Your task to perform on an android device: turn off data saver in the chrome app Image 0: 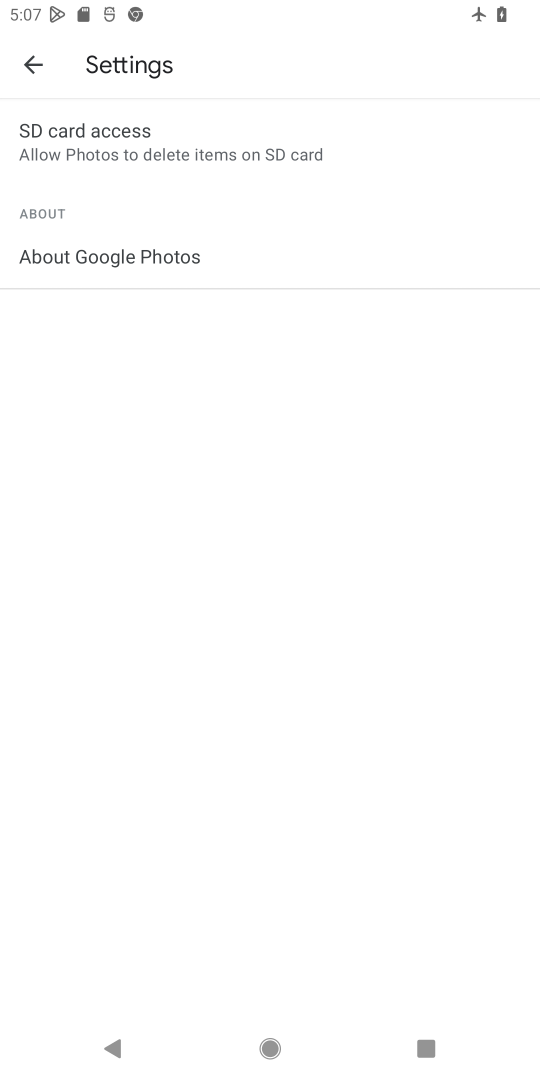
Step 0: click (35, 71)
Your task to perform on an android device: turn off data saver in the chrome app Image 1: 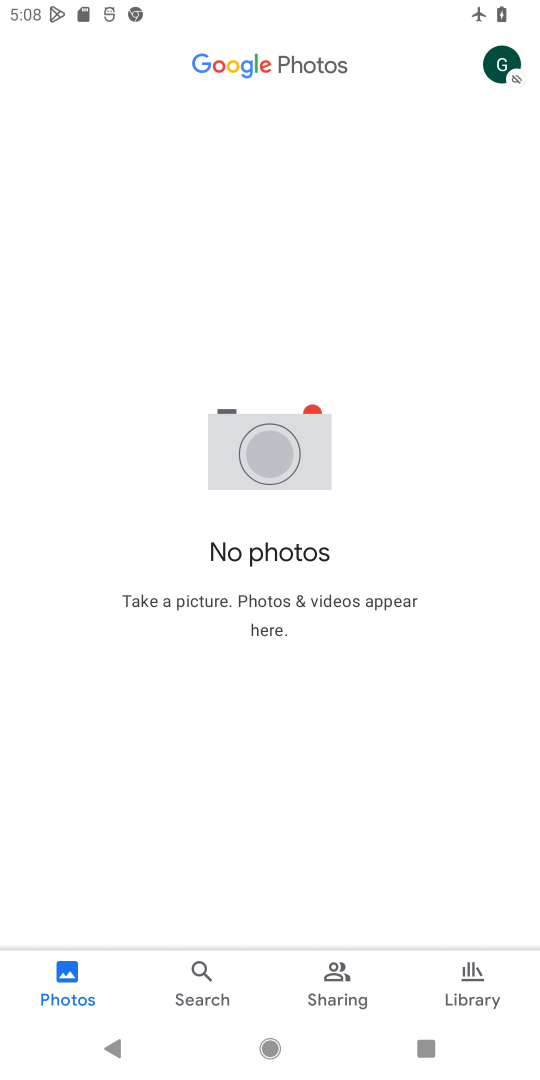
Step 1: press home button
Your task to perform on an android device: turn off data saver in the chrome app Image 2: 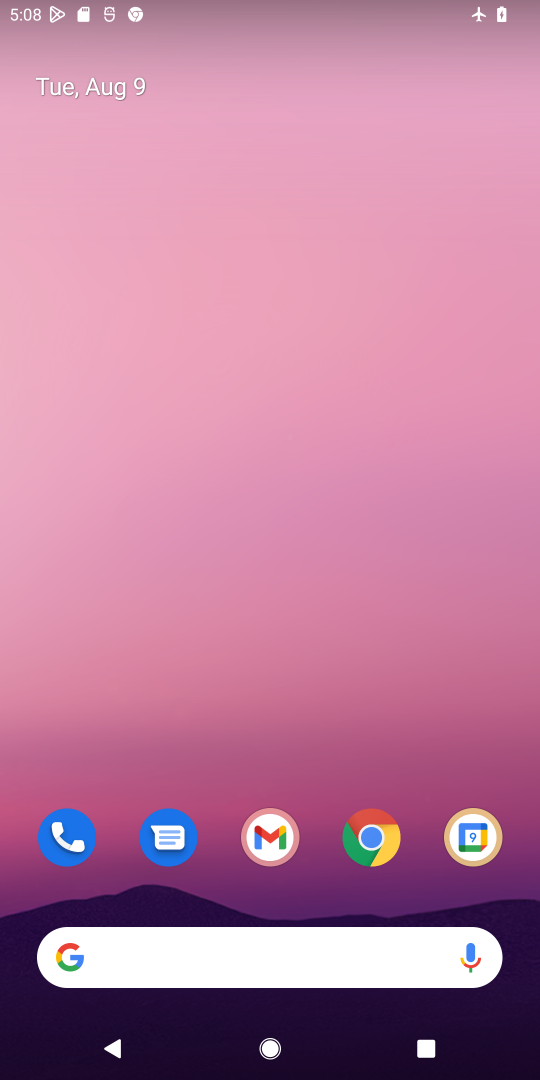
Step 2: drag from (178, 907) to (275, 295)
Your task to perform on an android device: turn off data saver in the chrome app Image 3: 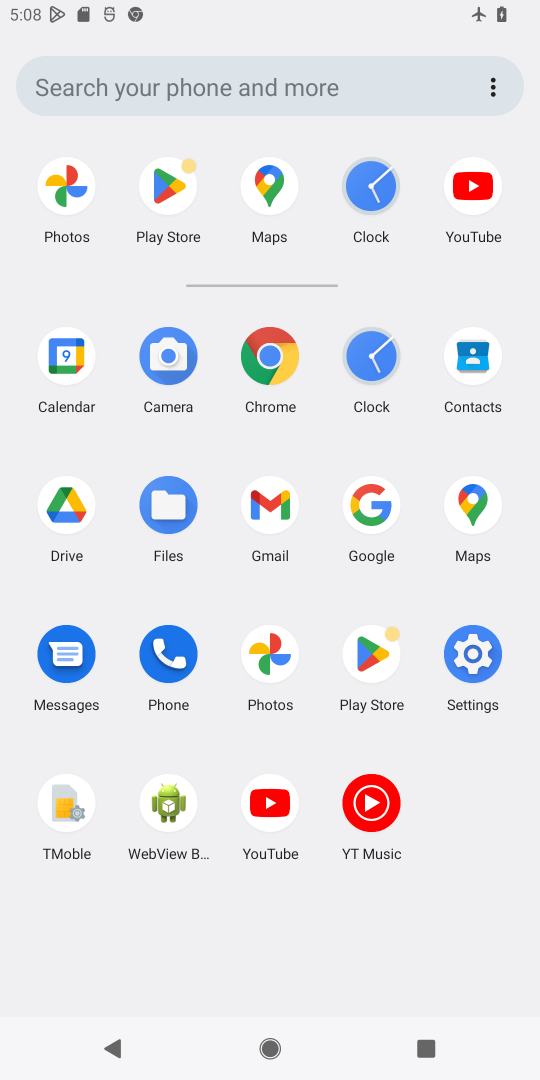
Step 3: click (463, 628)
Your task to perform on an android device: turn off data saver in the chrome app Image 4: 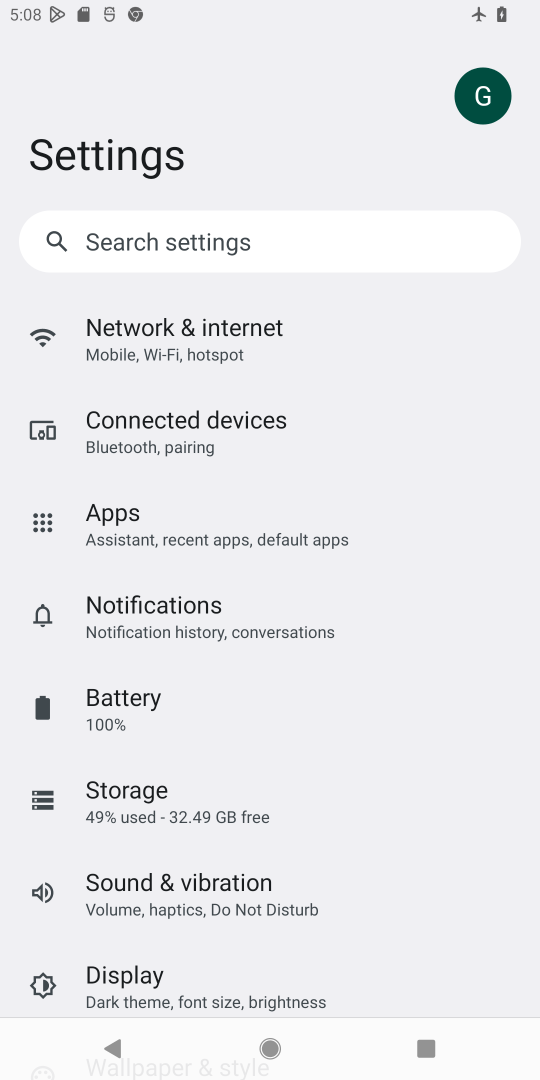
Step 4: drag from (201, 917) to (332, 521)
Your task to perform on an android device: turn off data saver in the chrome app Image 5: 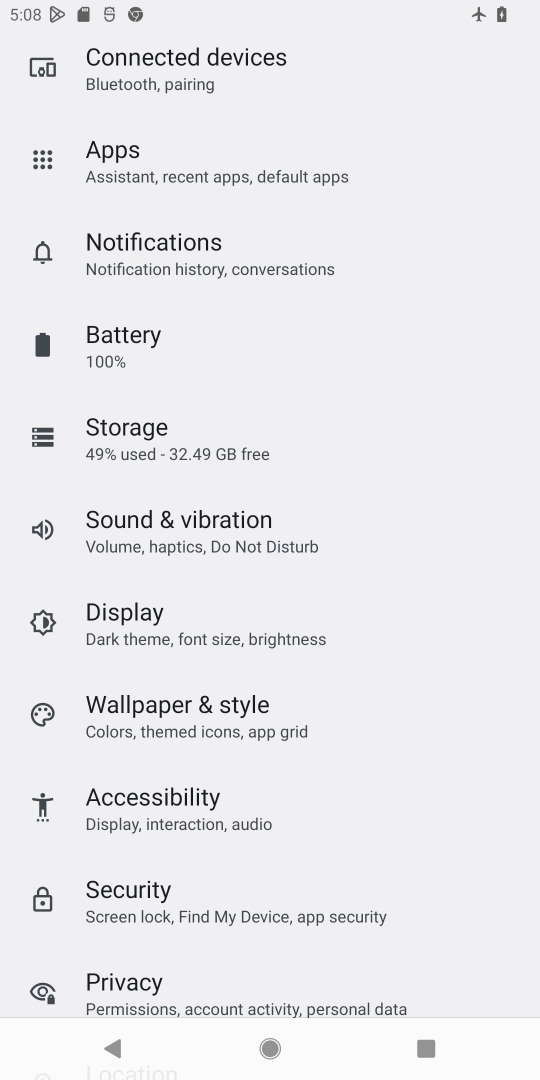
Step 5: press home button
Your task to perform on an android device: turn off data saver in the chrome app Image 6: 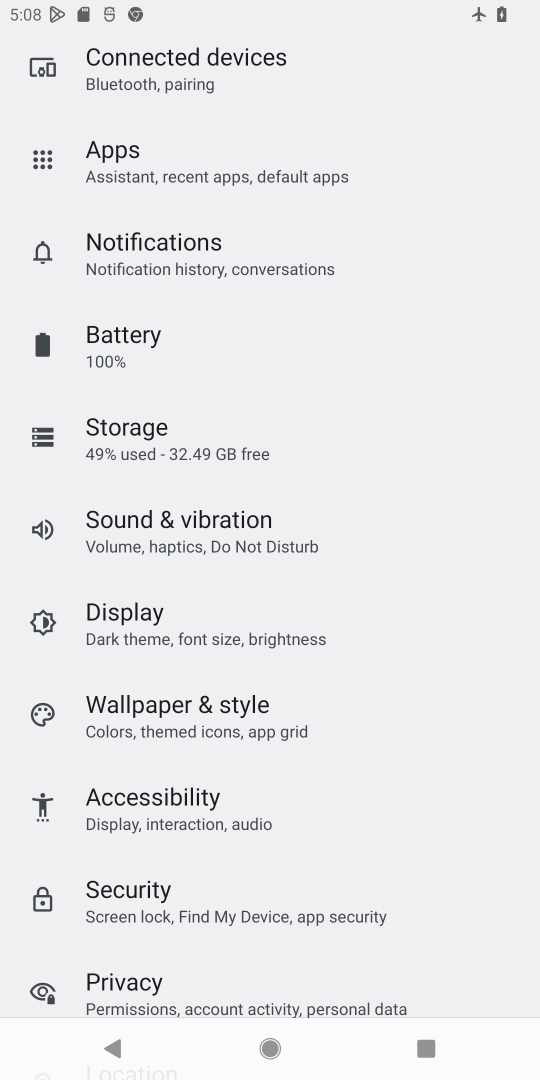
Step 6: press home button
Your task to perform on an android device: turn off data saver in the chrome app Image 7: 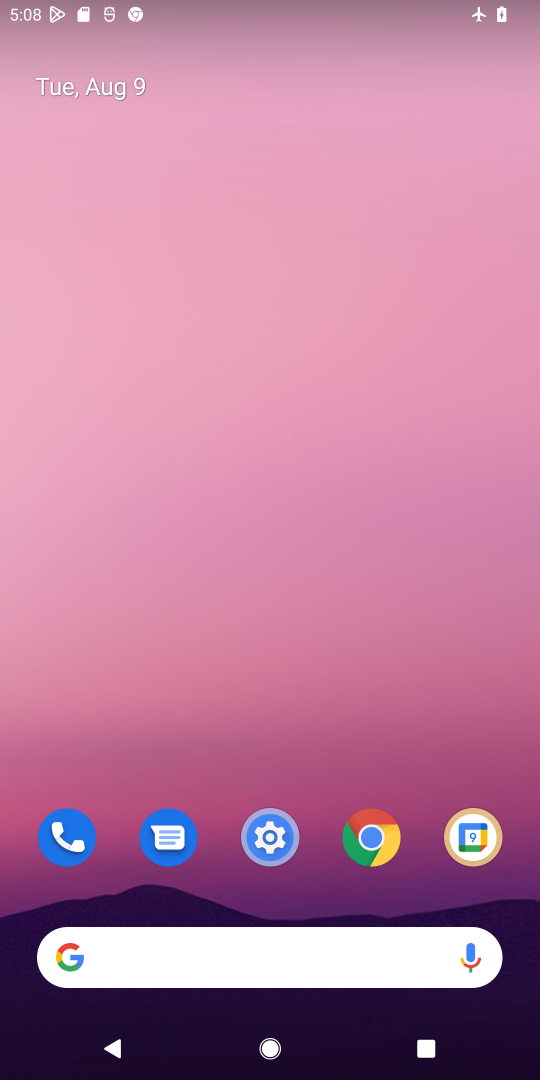
Step 7: drag from (265, 799) to (400, 210)
Your task to perform on an android device: turn off data saver in the chrome app Image 8: 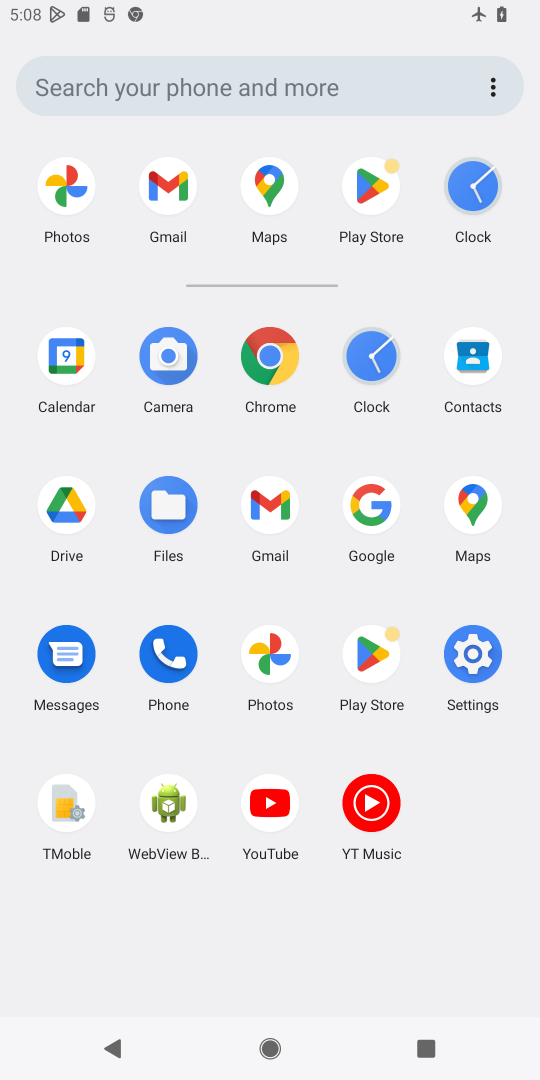
Step 8: click (287, 339)
Your task to perform on an android device: turn off data saver in the chrome app Image 9: 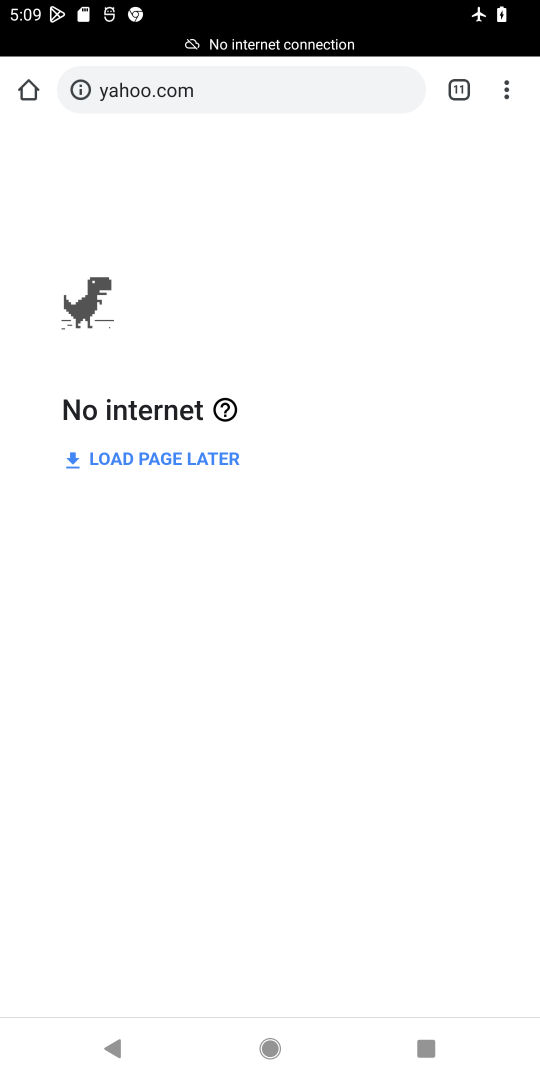
Step 9: click (532, 82)
Your task to perform on an android device: turn off data saver in the chrome app Image 10: 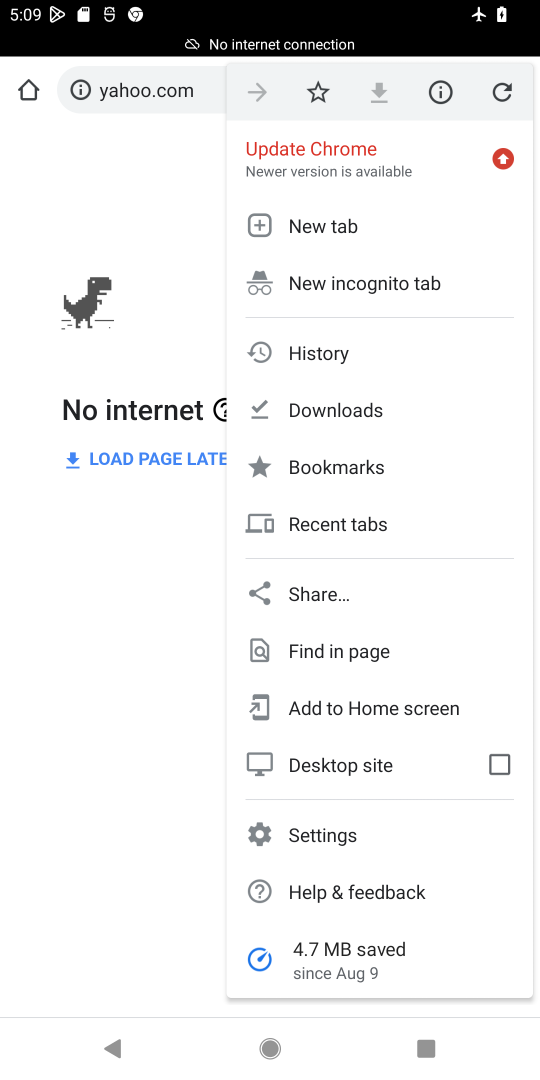
Step 10: click (364, 823)
Your task to perform on an android device: turn off data saver in the chrome app Image 11: 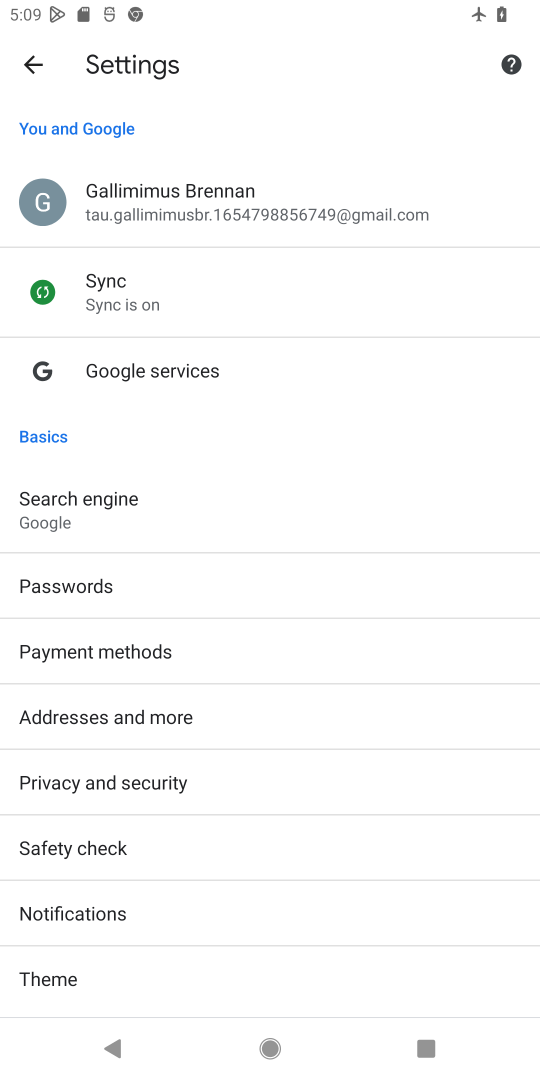
Step 11: drag from (172, 924) to (271, 418)
Your task to perform on an android device: turn off data saver in the chrome app Image 12: 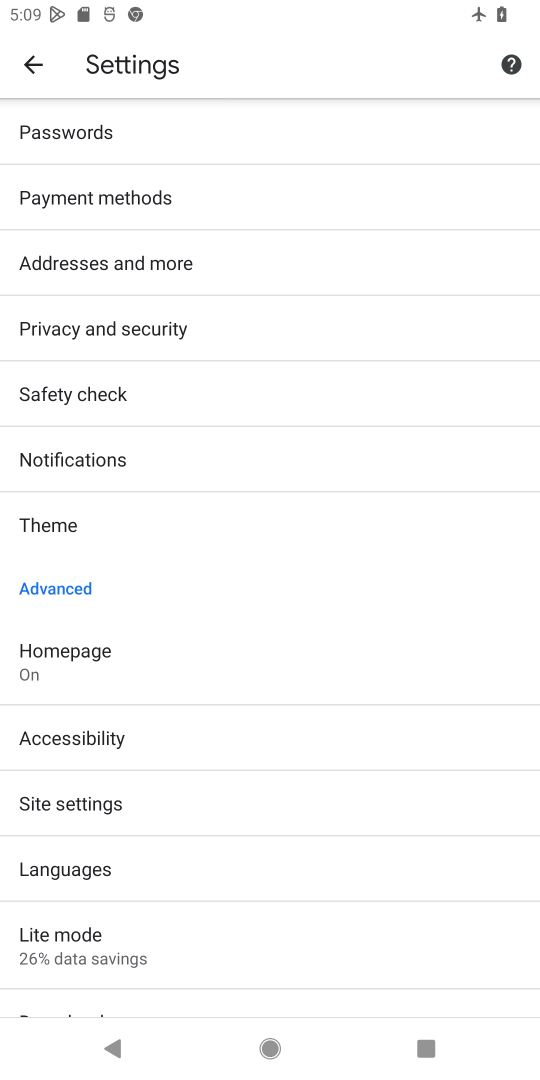
Step 12: click (100, 936)
Your task to perform on an android device: turn off data saver in the chrome app Image 13: 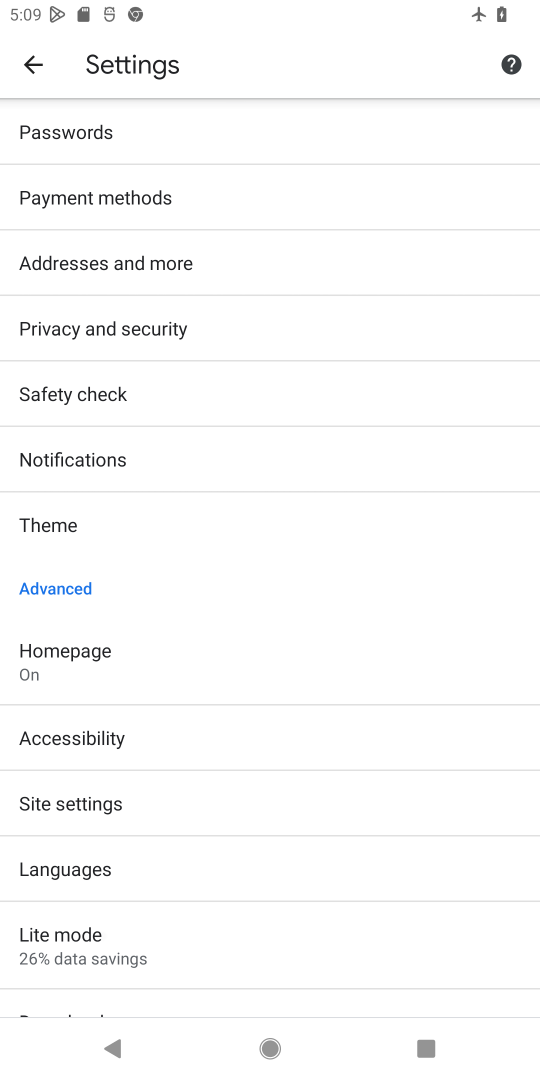
Step 13: drag from (100, 936) to (254, 639)
Your task to perform on an android device: turn off data saver in the chrome app Image 14: 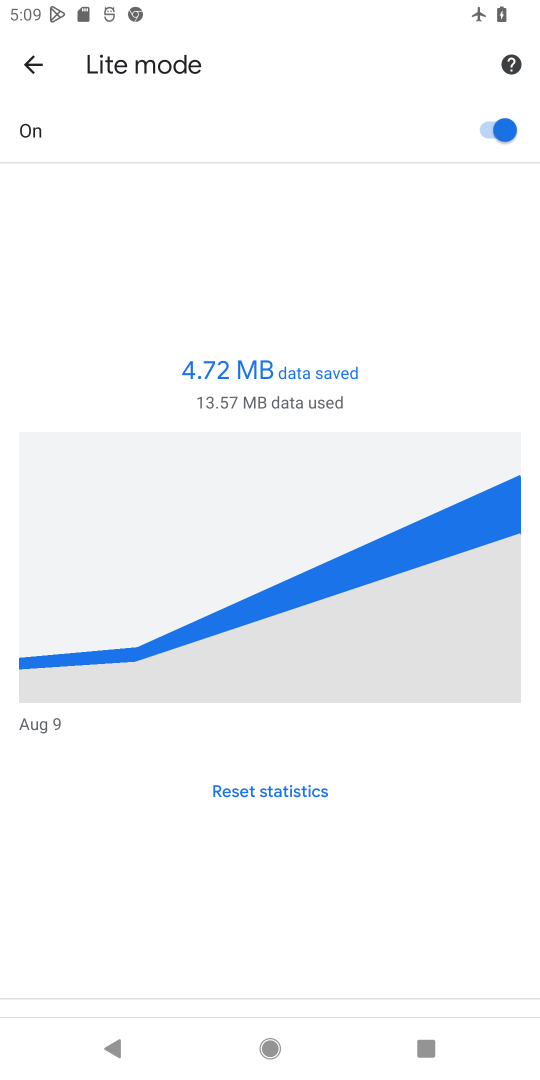
Step 14: click (46, 47)
Your task to perform on an android device: turn off data saver in the chrome app Image 15: 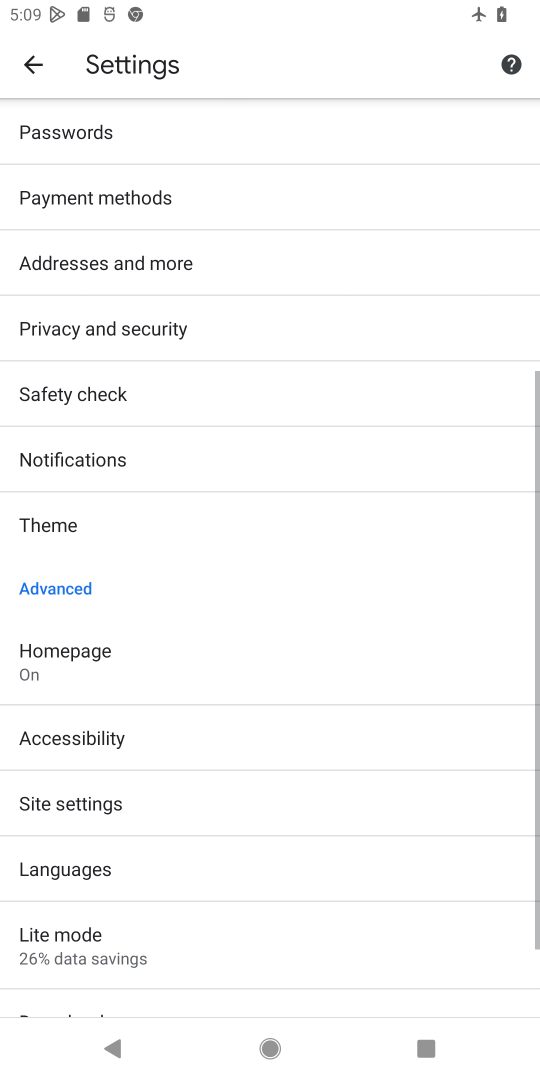
Step 15: drag from (179, 944) to (325, 374)
Your task to perform on an android device: turn off data saver in the chrome app Image 16: 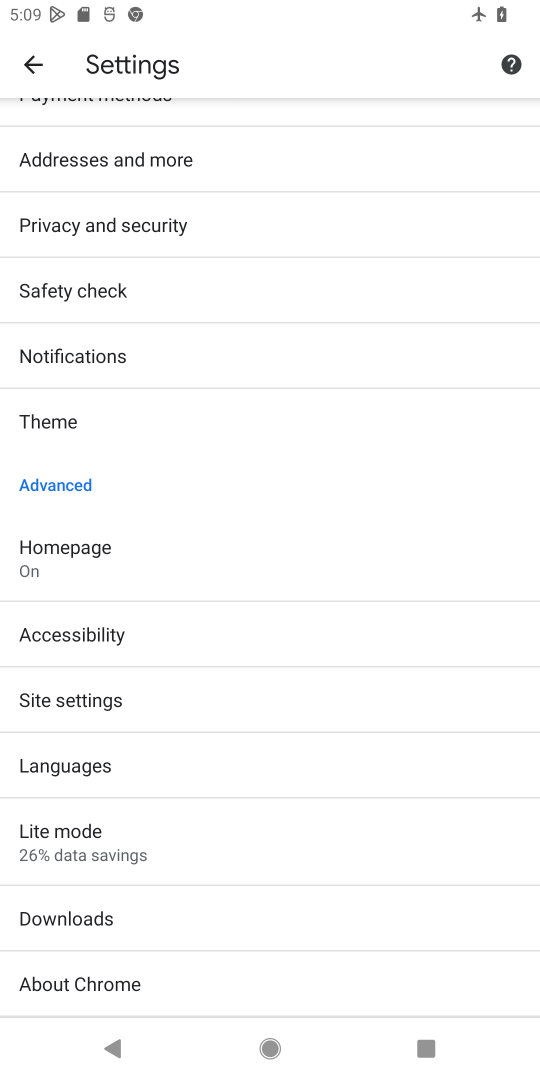
Step 16: click (117, 855)
Your task to perform on an android device: turn off data saver in the chrome app Image 17: 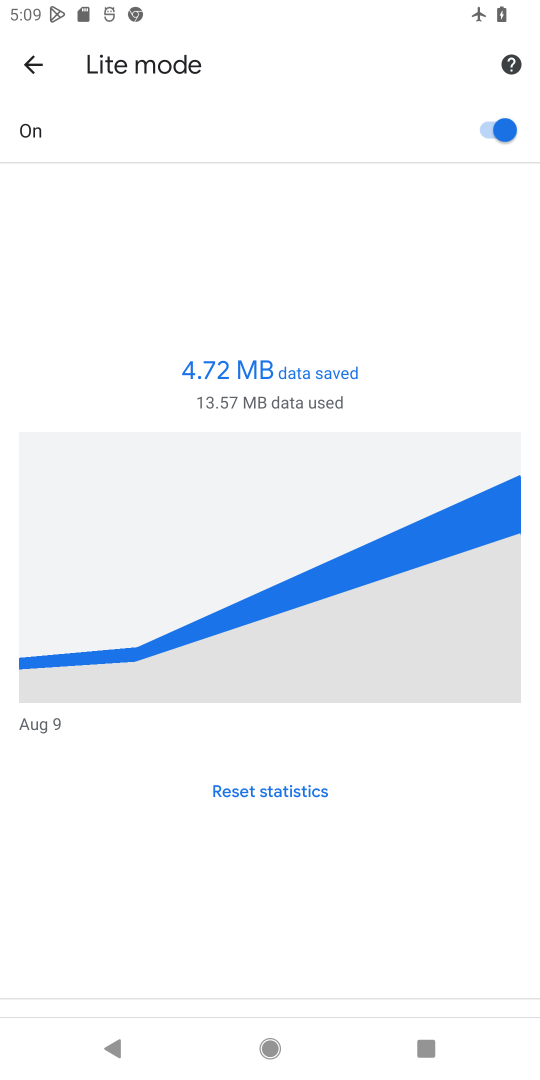
Step 17: click (480, 127)
Your task to perform on an android device: turn off data saver in the chrome app Image 18: 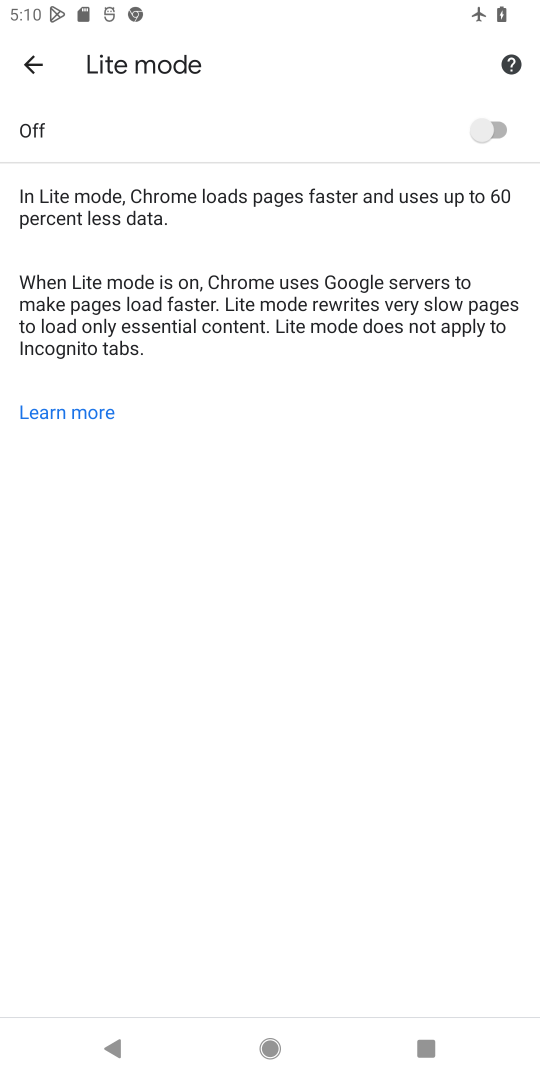
Step 18: task complete